Your task to perform on an android device: Show me the alarms in the clock app Image 0: 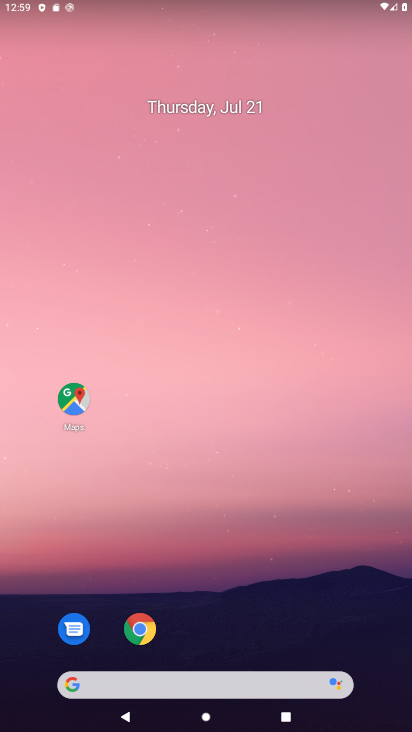
Step 0: drag from (40, 668) to (181, 2)
Your task to perform on an android device: Show me the alarms in the clock app Image 1: 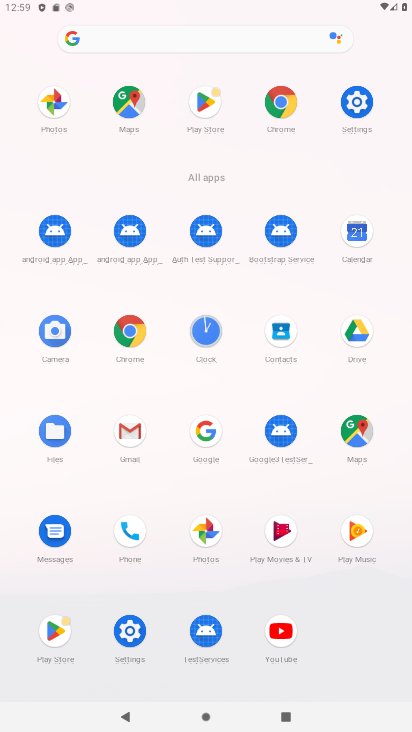
Step 1: click (226, 340)
Your task to perform on an android device: Show me the alarms in the clock app Image 2: 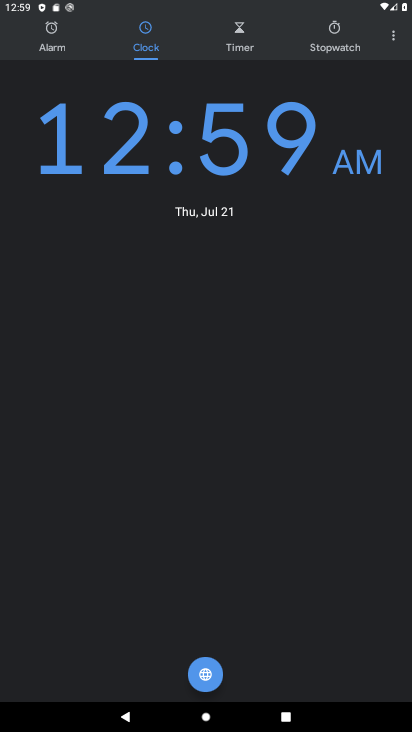
Step 2: click (46, 43)
Your task to perform on an android device: Show me the alarms in the clock app Image 3: 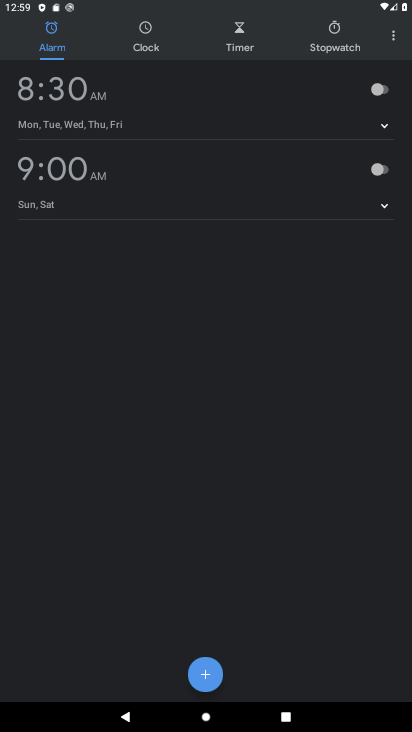
Step 3: click (387, 88)
Your task to perform on an android device: Show me the alarms in the clock app Image 4: 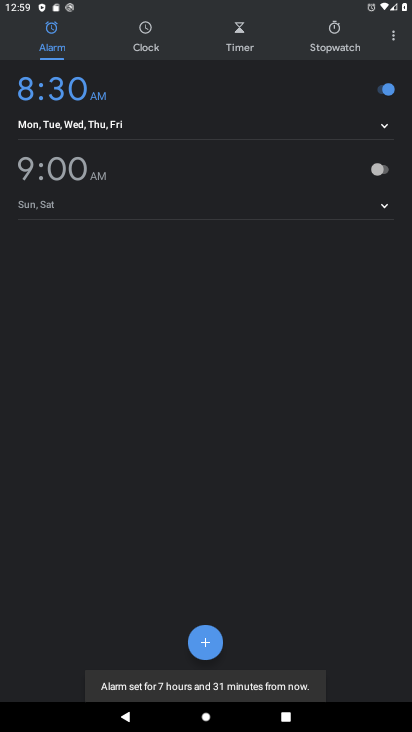
Step 4: task complete